Your task to perform on an android device: Open accessibility settings Image 0: 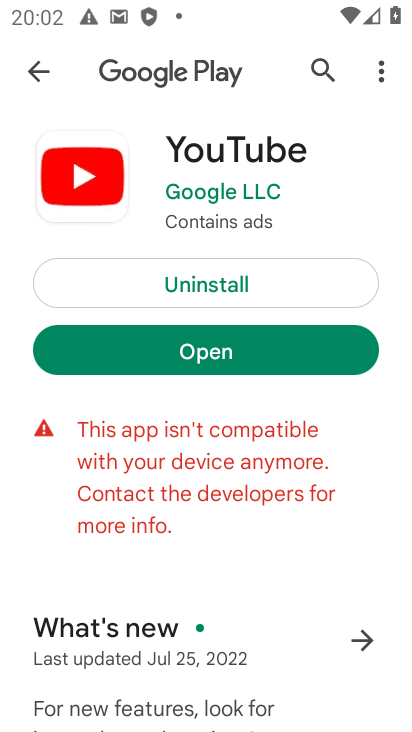
Step 0: press home button
Your task to perform on an android device: Open accessibility settings Image 1: 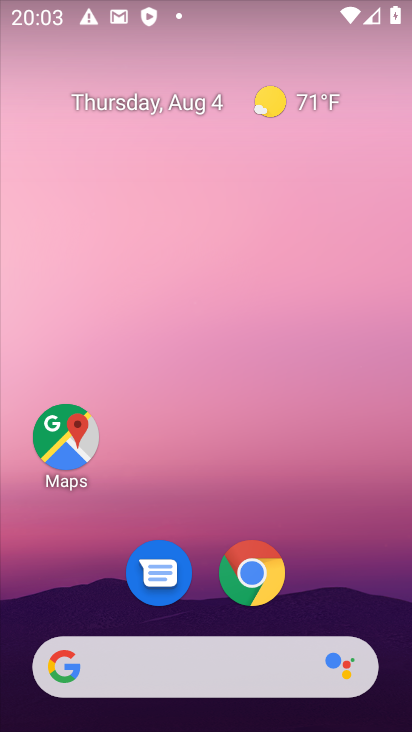
Step 1: drag from (203, 638) to (193, 43)
Your task to perform on an android device: Open accessibility settings Image 2: 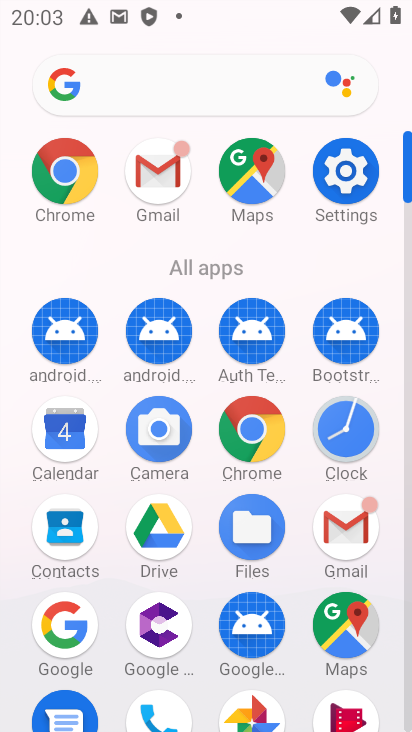
Step 2: click (361, 169)
Your task to perform on an android device: Open accessibility settings Image 3: 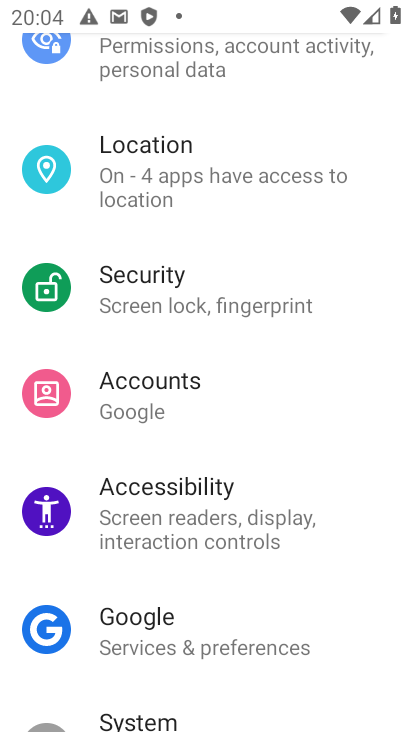
Step 3: click (185, 528)
Your task to perform on an android device: Open accessibility settings Image 4: 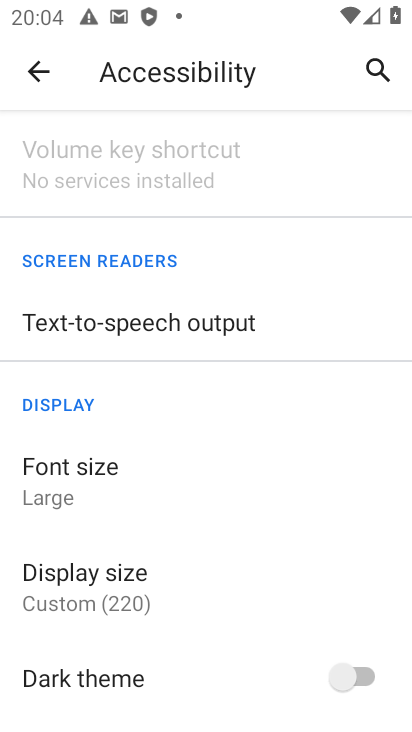
Step 4: task complete